Your task to perform on an android device: Clear all items from cart on newegg. Add razer blade to the cart on newegg Image 0: 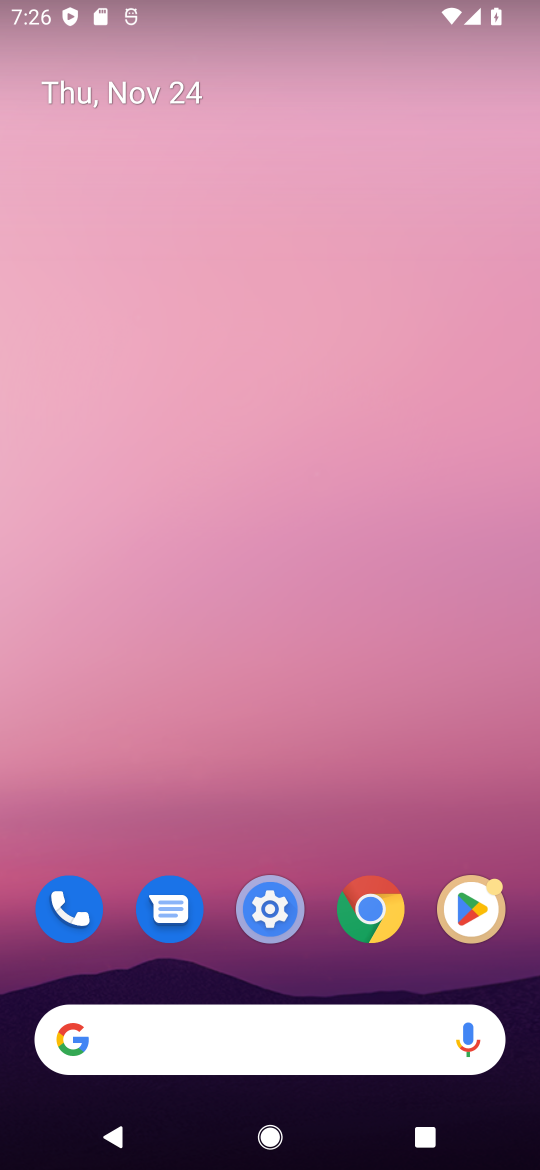
Step 0: click (379, 891)
Your task to perform on an android device: Clear all items from cart on newegg. Add razer blade to the cart on newegg Image 1: 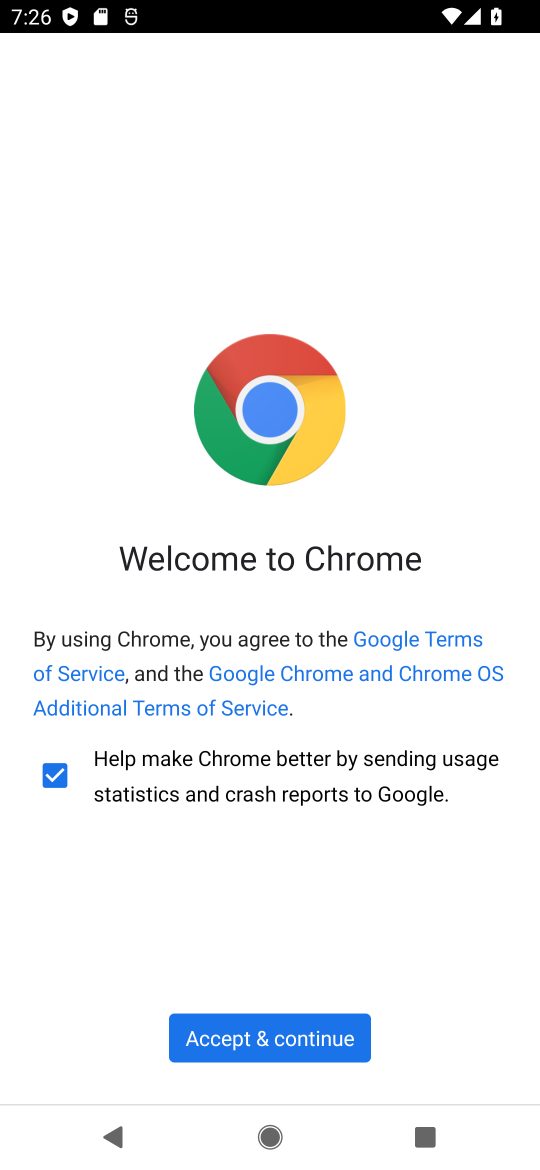
Step 1: click (269, 1038)
Your task to perform on an android device: Clear all items from cart on newegg. Add razer blade to the cart on newegg Image 2: 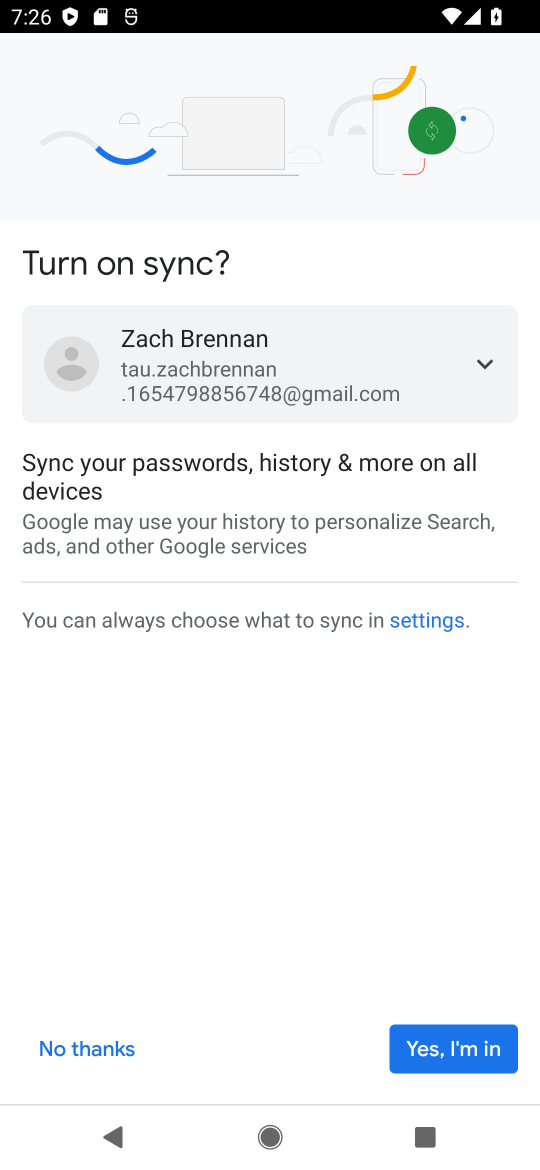
Step 2: click (457, 1046)
Your task to perform on an android device: Clear all items from cart on newegg. Add razer blade to the cart on newegg Image 3: 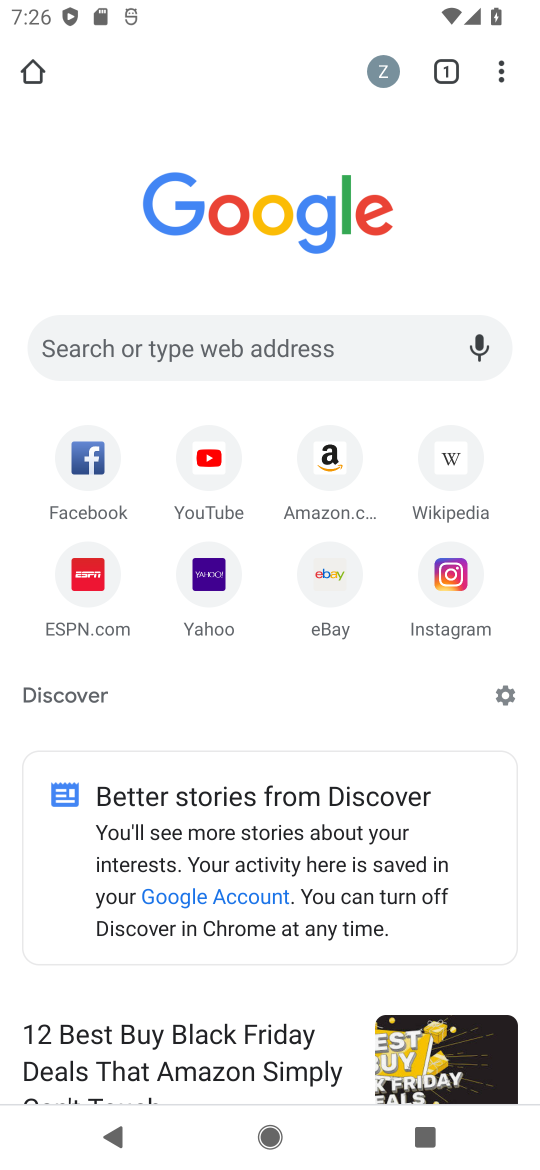
Step 3: click (269, 342)
Your task to perform on an android device: Clear all items from cart on newegg. Add razer blade to the cart on newegg Image 4: 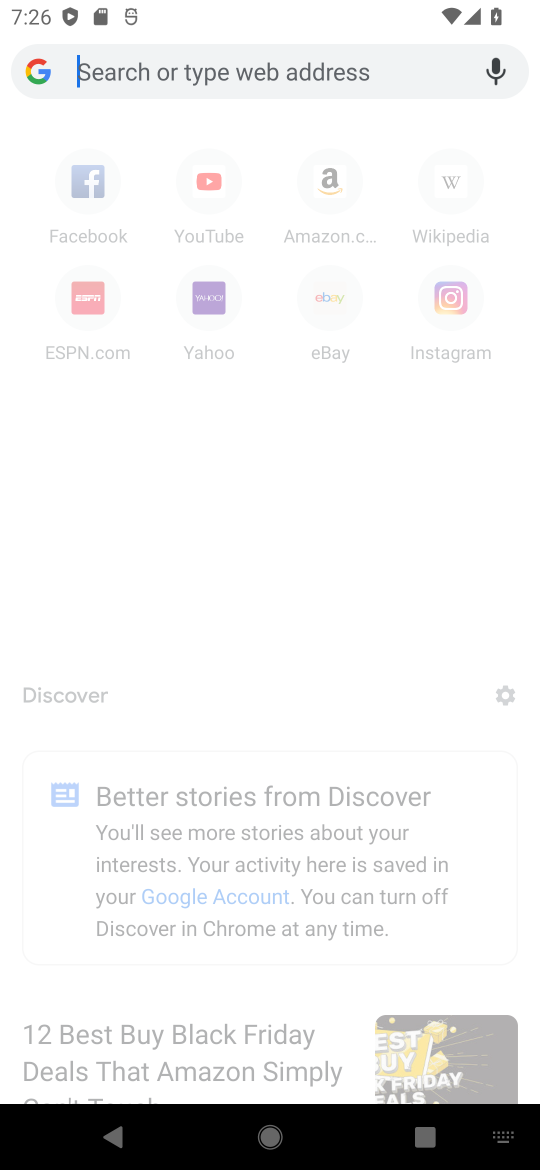
Step 4: type "newegg.com"
Your task to perform on an android device: Clear all items from cart on newegg. Add razer blade to the cart on newegg Image 5: 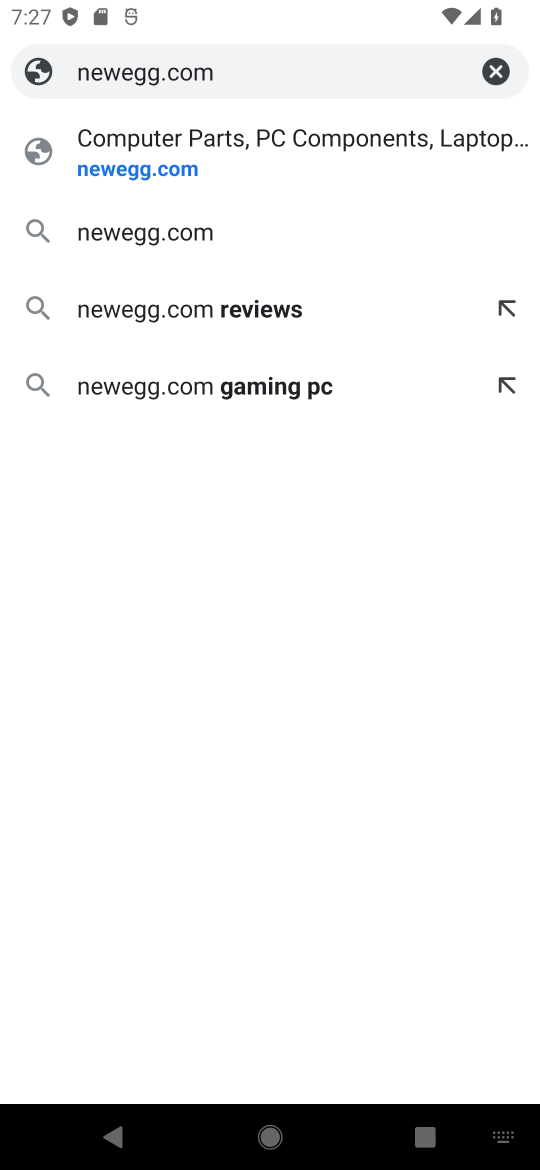
Step 5: click (295, 148)
Your task to perform on an android device: Clear all items from cart on newegg. Add razer blade to the cart on newegg Image 6: 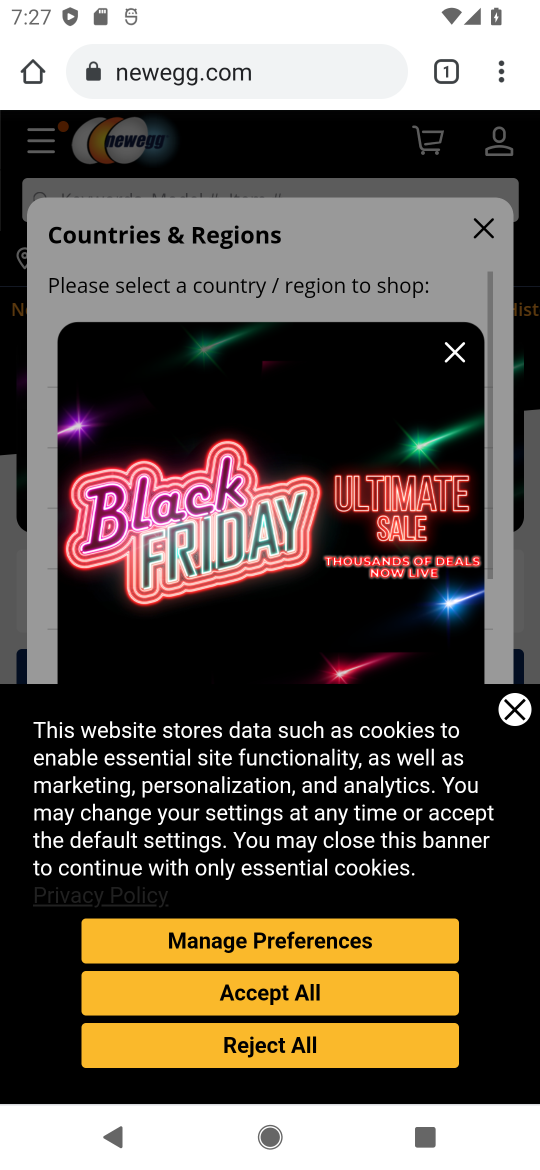
Step 6: click (252, 999)
Your task to perform on an android device: Clear all items from cart on newegg. Add razer blade to the cart on newegg Image 7: 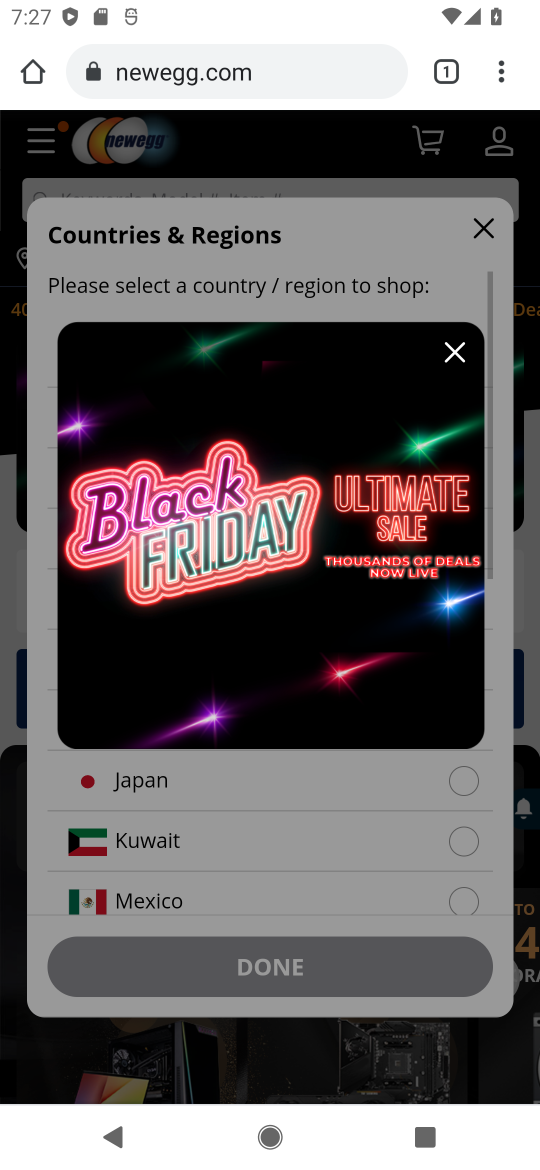
Step 7: click (458, 358)
Your task to perform on an android device: Clear all items from cart on newegg. Add razer blade to the cart on newegg Image 8: 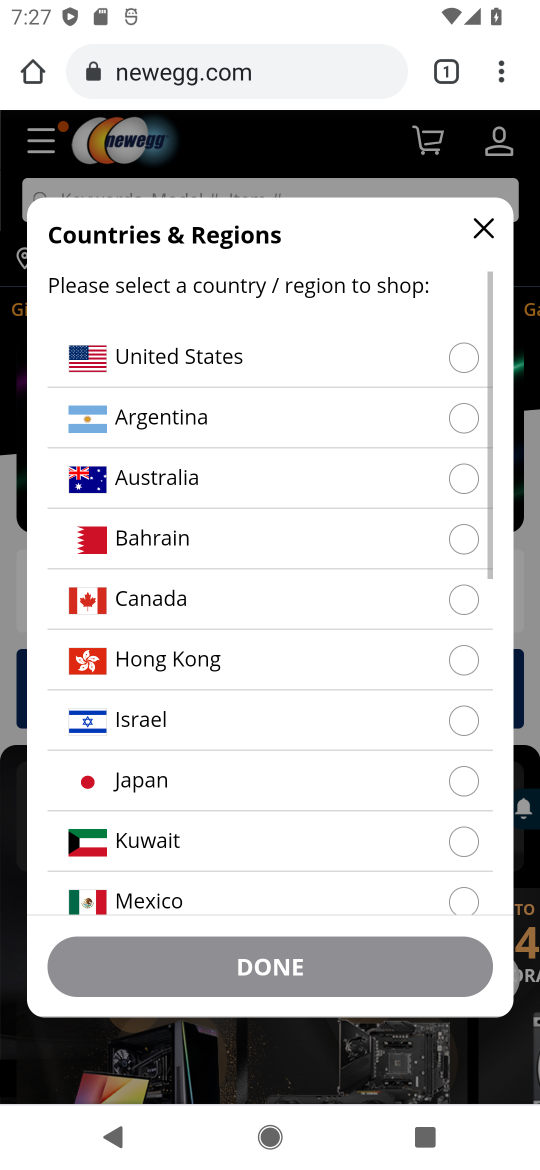
Step 8: click (375, 357)
Your task to perform on an android device: Clear all items from cart on newegg. Add razer blade to the cart on newegg Image 9: 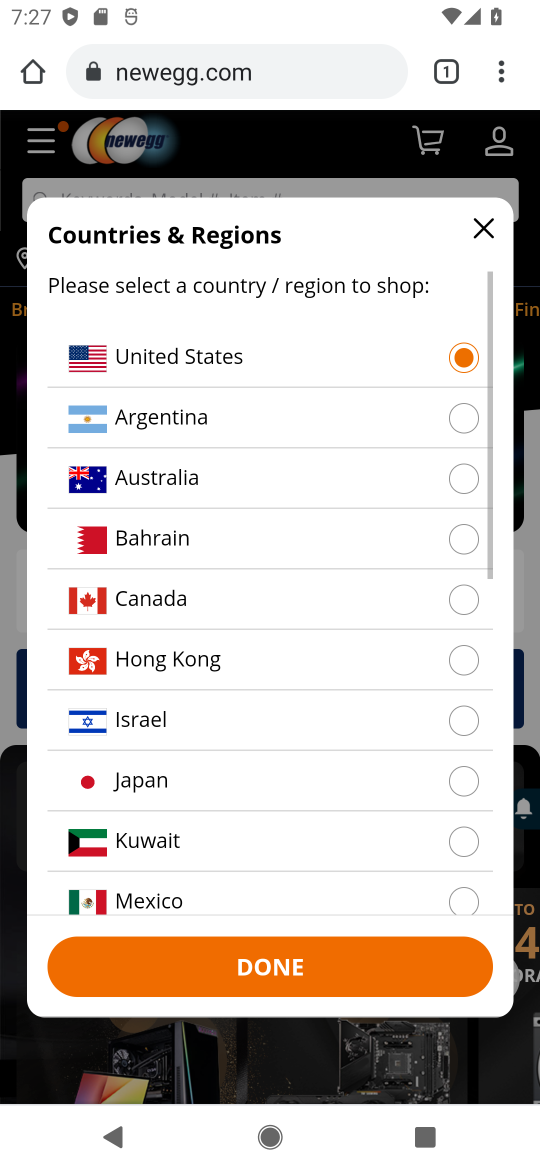
Step 9: click (253, 972)
Your task to perform on an android device: Clear all items from cart on newegg. Add razer blade to the cart on newegg Image 10: 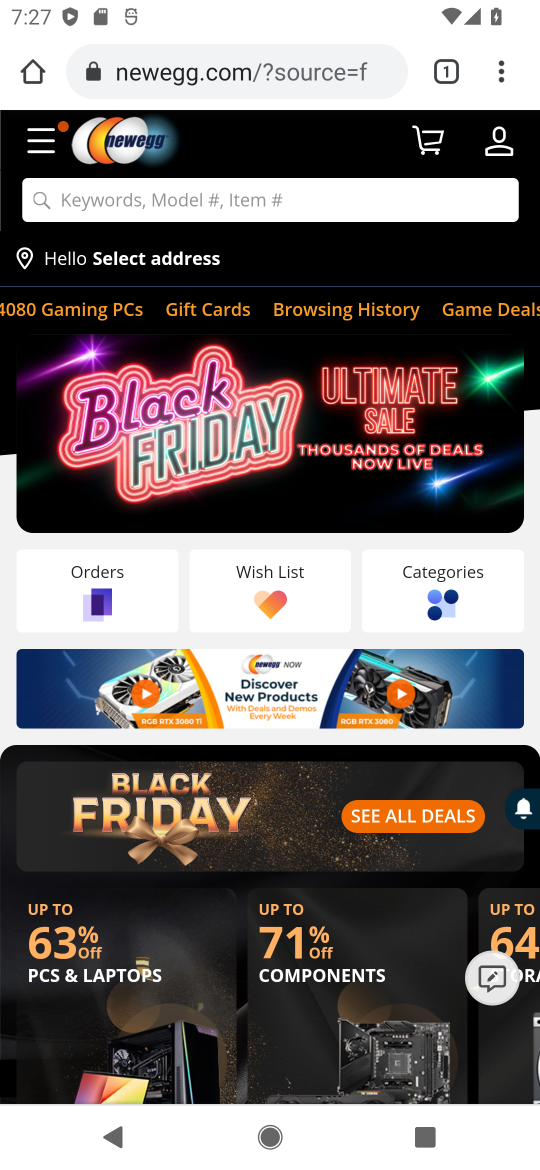
Step 10: click (262, 197)
Your task to perform on an android device: Clear all items from cart on newegg. Add razer blade to the cart on newegg Image 11: 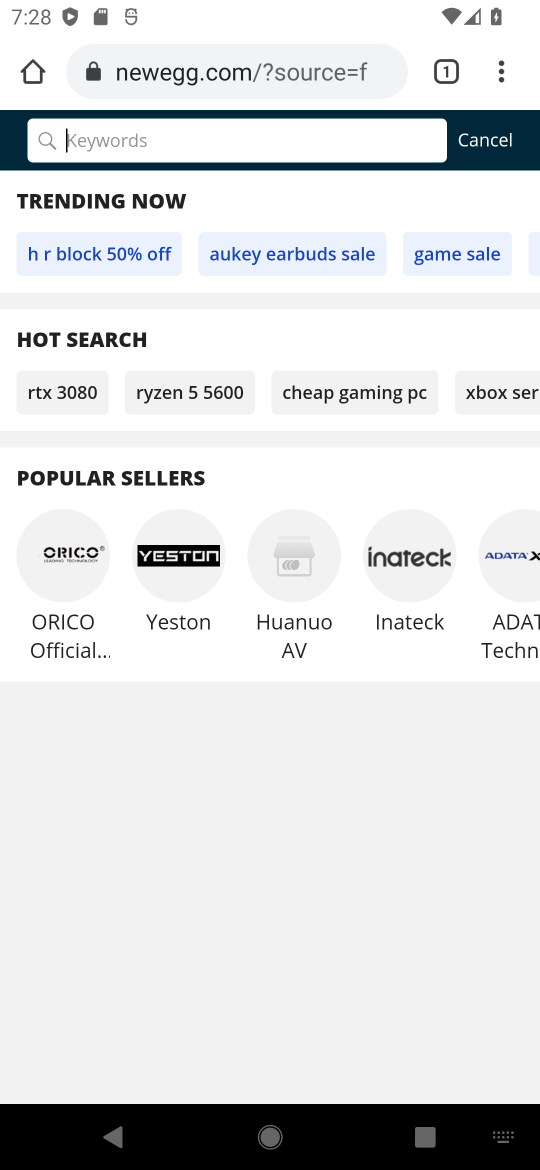
Step 11: type "razer blade"
Your task to perform on an android device: Clear all items from cart on newegg. Add razer blade to the cart on newegg Image 12: 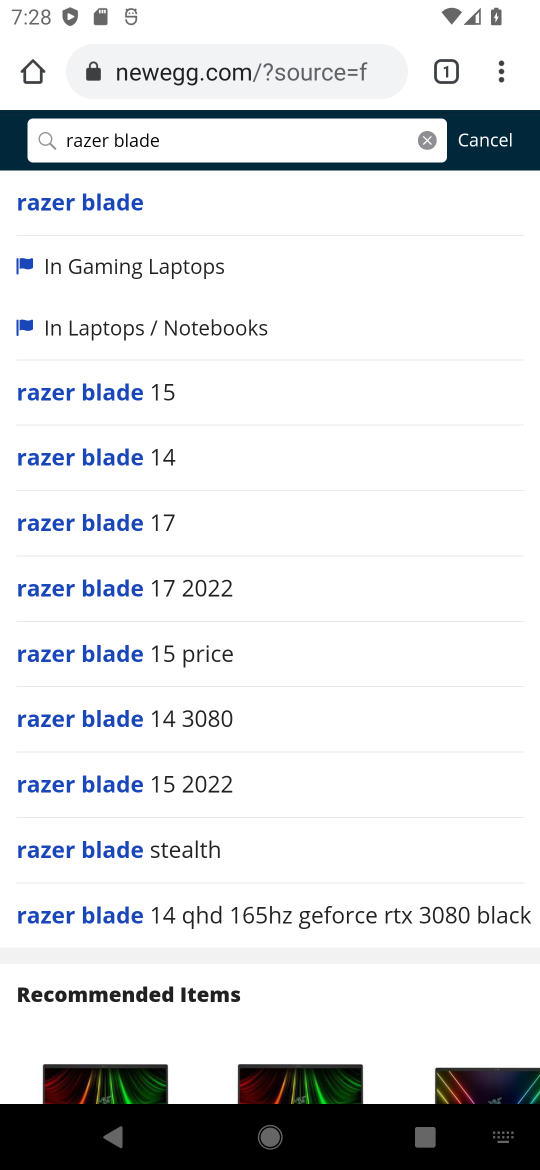
Step 12: click (211, 210)
Your task to perform on an android device: Clear all items from cart on newegg. Add razer blade to the cart on newegg Image 13: 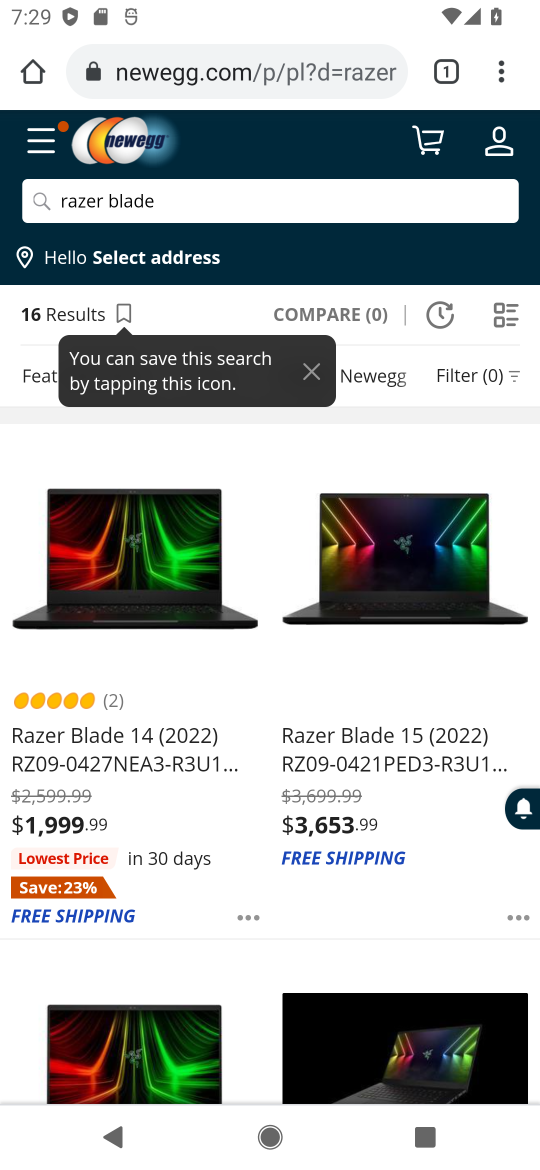
Step 13: click (132, 742)
Your task to perform on an android device: Clear all items from cart on newegg. Add razer blade to the cart on newegg Image 14: 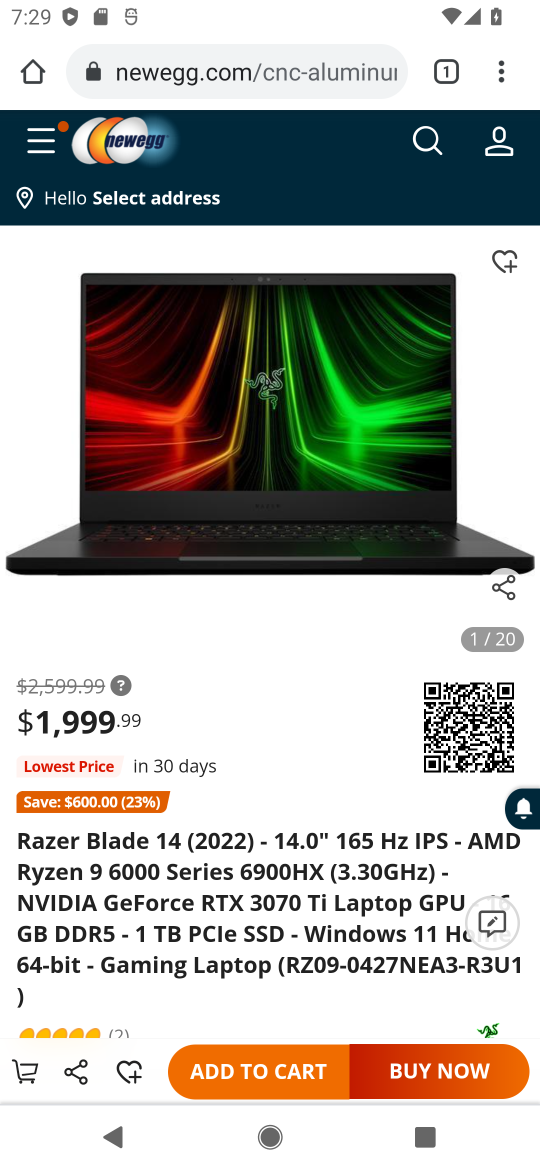
Step 14: click (294, 1077)
Your task to perform on an android device: Clear all items from cart on newegg. Add razer blade to the cart on newegg Image 15: 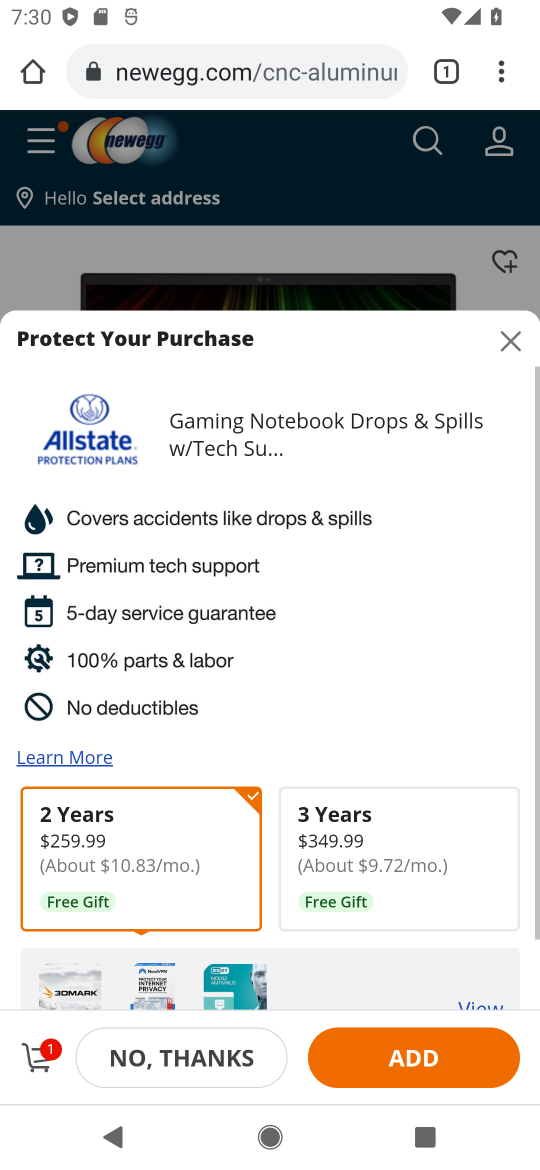
Step 15: click (134, 1053)
Your task to perform on an android device: Clear all items from cart on newegg. Add razer blade to the cart on newegg Image 16: 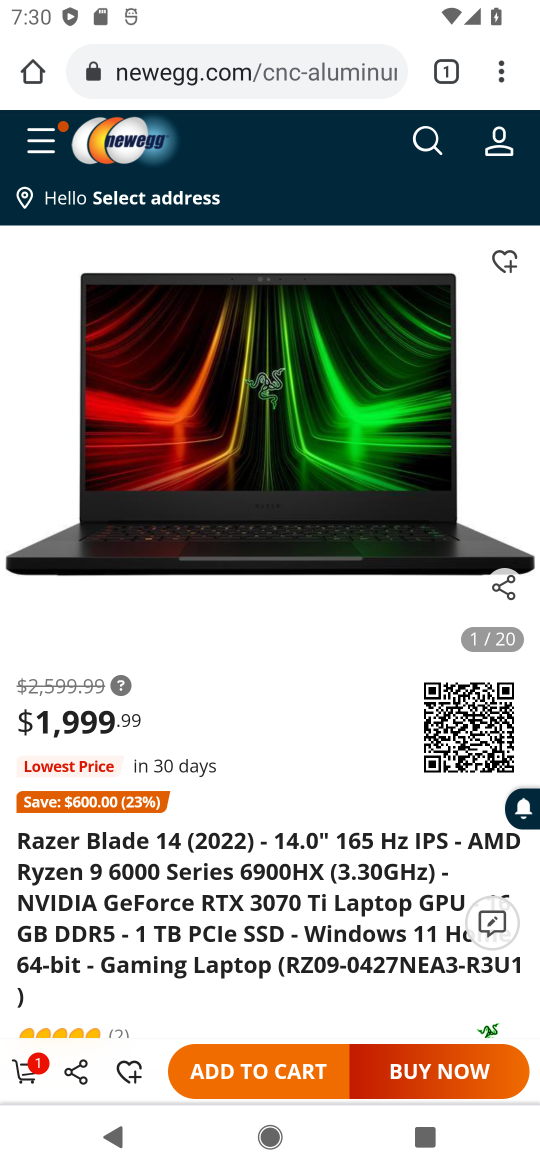
Step 16: task complete